Your task to perform on an android device: change the clock display to show seconds Image 0: 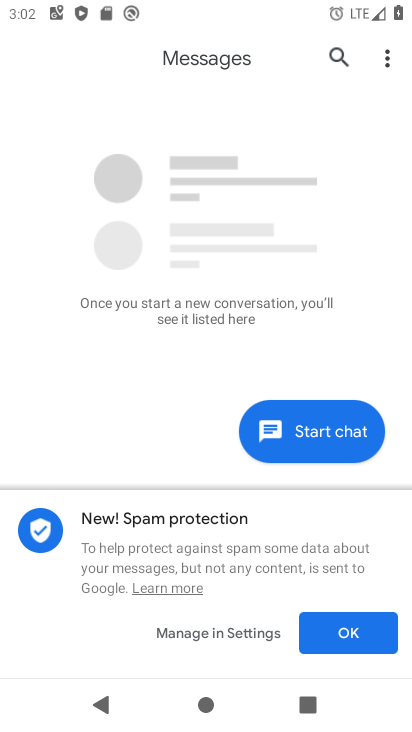
Step 0: press home button
Your task to perform on an android device: change the clock display to show seconds Image 1: 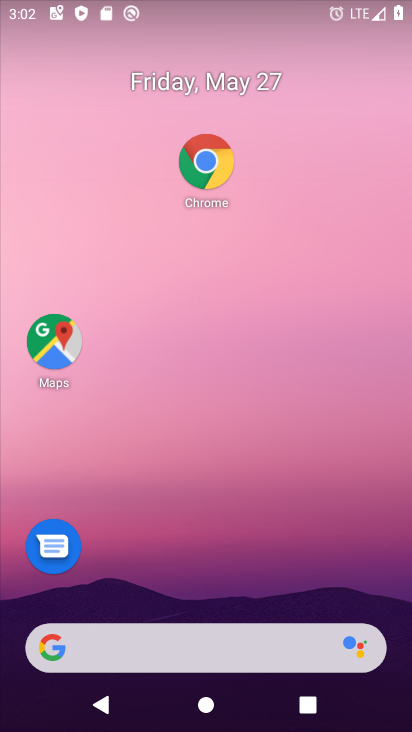
Step 1: drag from (150, 510) to (172, 162)
Your task to perform on an android device: change the clock display to show seconds Image 2: 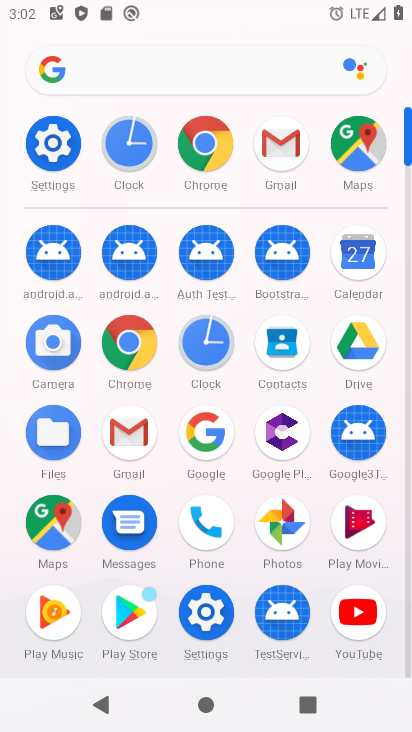
Step 2: click (202, 342)
Your task to perform on an android device: change the clock display to show seconds Image 3: 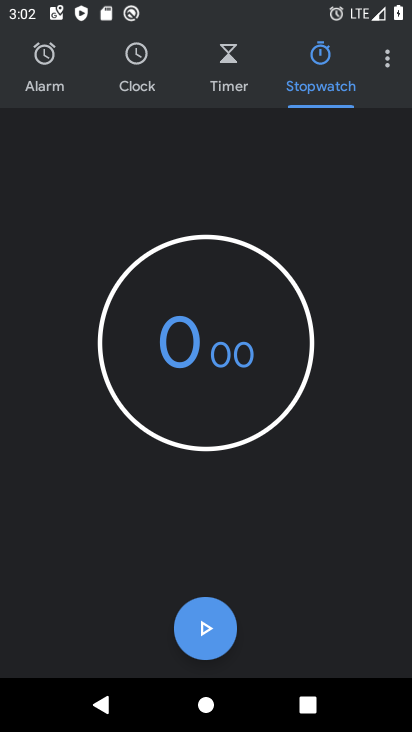
Step 3: click (391, 59)
Your task to perform on an android device: change the clock display to show seconds Image 4: 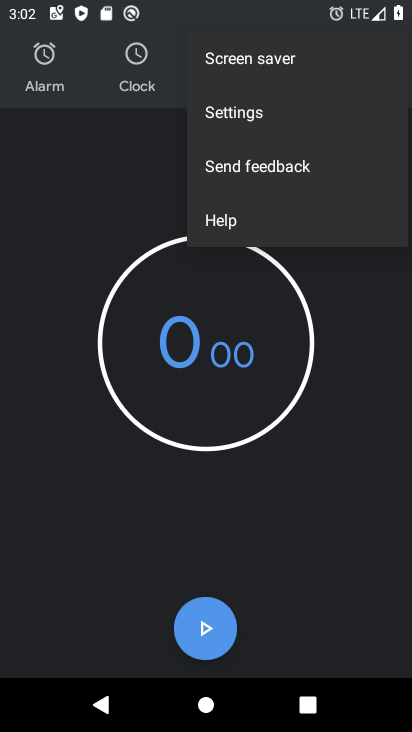
Step 4: click (305, 119)
Your task to perform on an android device: change the clock display to show seconds Image 5: 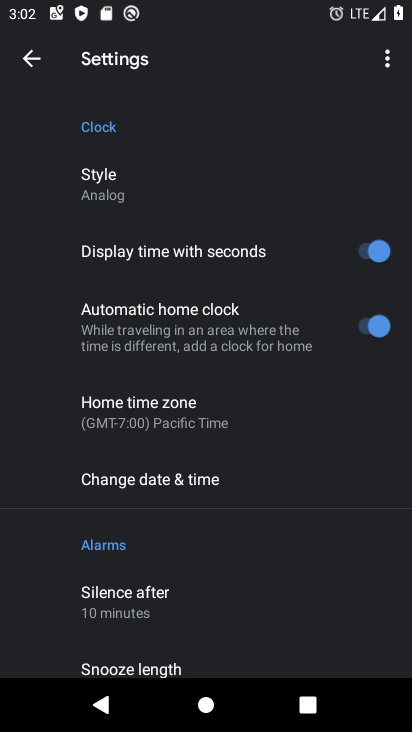
Step 5: task complete